Your task to perform on an android device: Open calendar and show me the third week of next month Image 0: 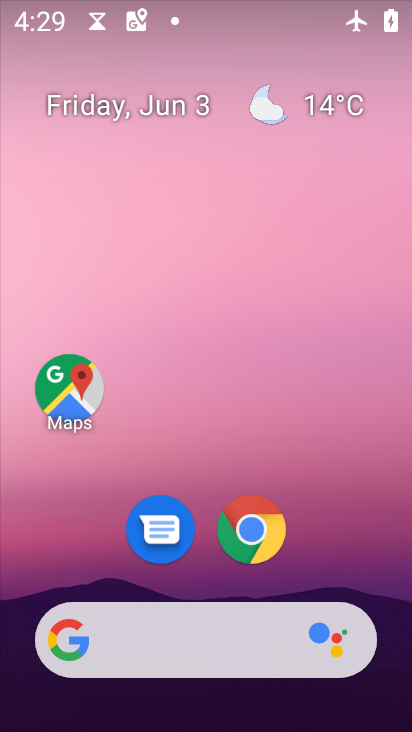
Step 0: drag from (368, 553) to (345, 83)
Your task to perform on an android device: Open calendar and show me the third week of next month Image 1: 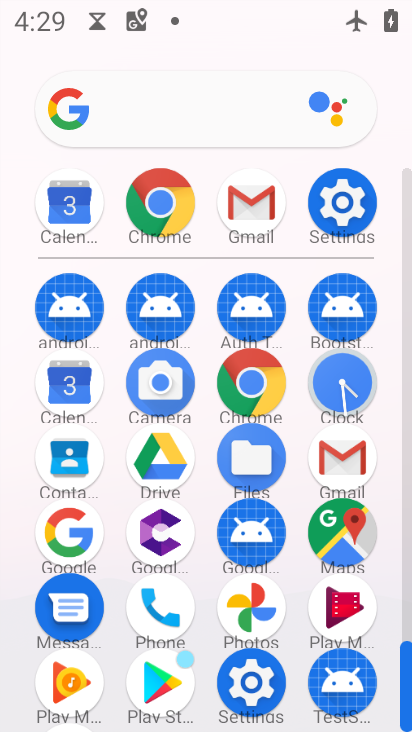
Step 1: click (61, 404)
Your task to perform on an android device: Open calendar and show me the third week of next month Image 2: 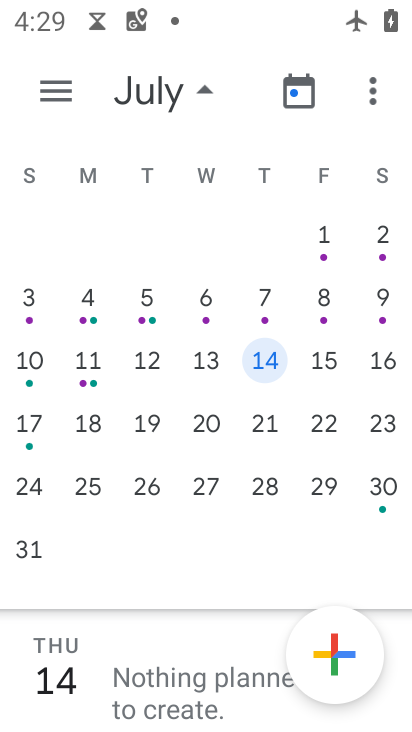
Step 2: drag from (349, 439) to (17, 195)
Your task to perform on an android device: Open calendar and show me the third week of next month Image 3: 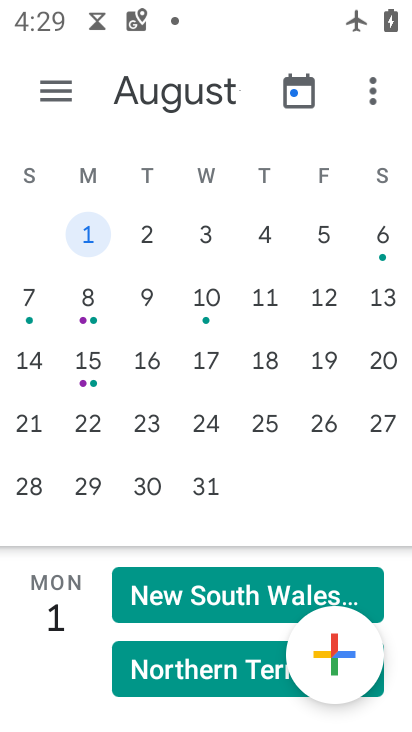
Step 3: click (26, 439)
Your task to perform on an android device: Open calendar and show me the third week of next month Image 4: 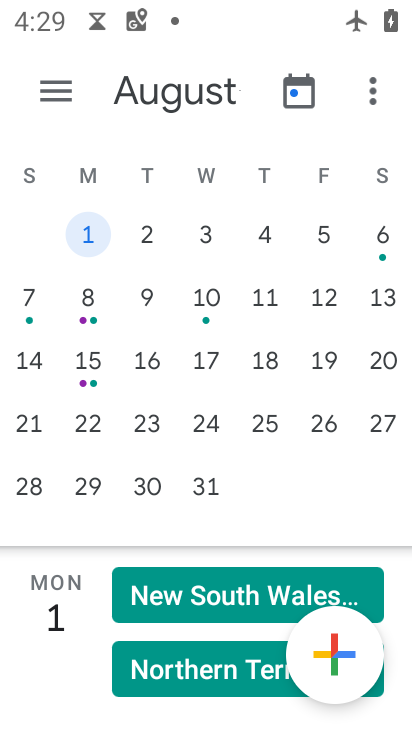
Step 4: click (27, 424)
Your task to perform on an android device: Open calendar and show me the third week of next month Image 5: 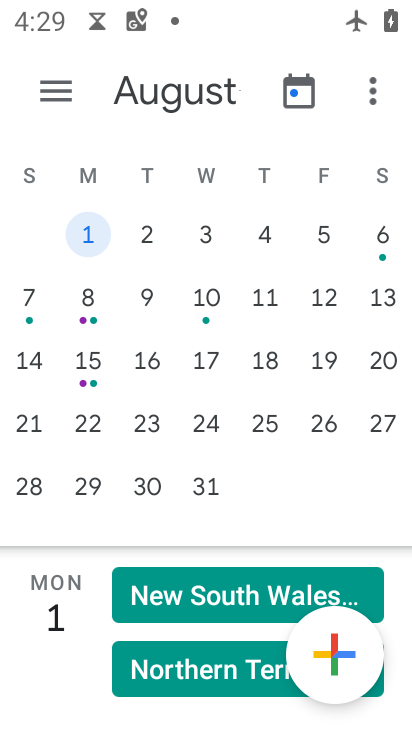
Step 5: click (27, 425)
Your task to perform on an android device: Open calendar and show me the third week of next month Image 6: 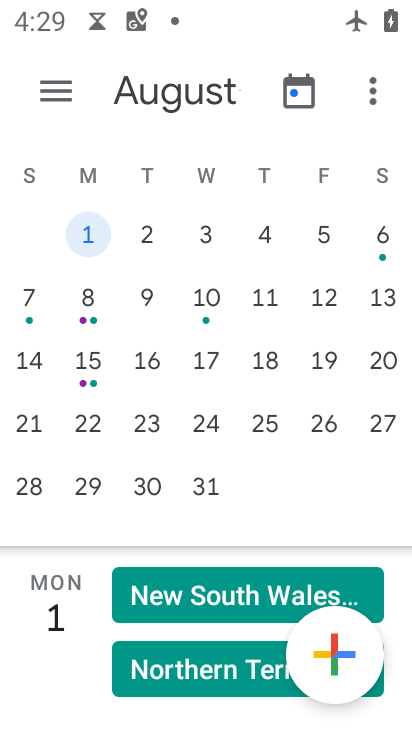
Step 6: click (36, 436)
Your task to perform on an android device: Open calendar and show me the third week of next month Image 7: 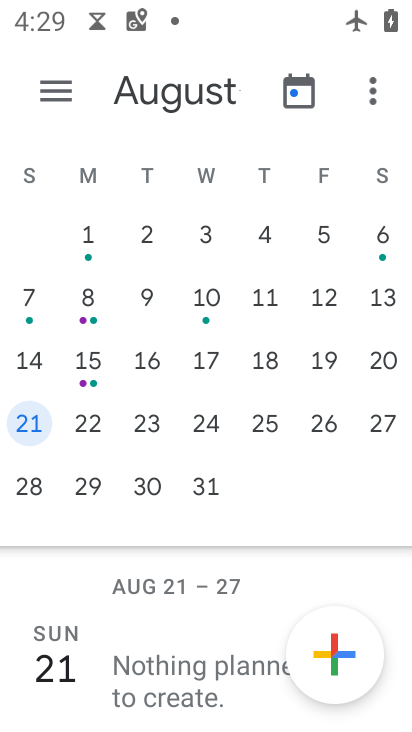
Step 7: task complete